Your task to perform on an android device: Open wifi settings Image 0: 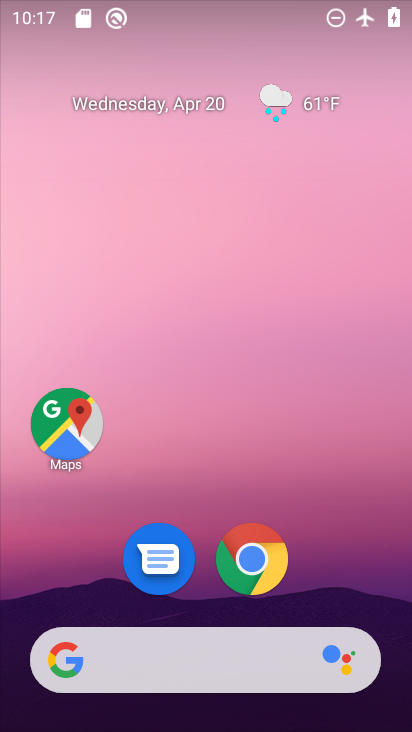
Step 0: drag from (363, 600) to (339, 280)
Your task to perform on an android device: Open wifi settings Image 1: 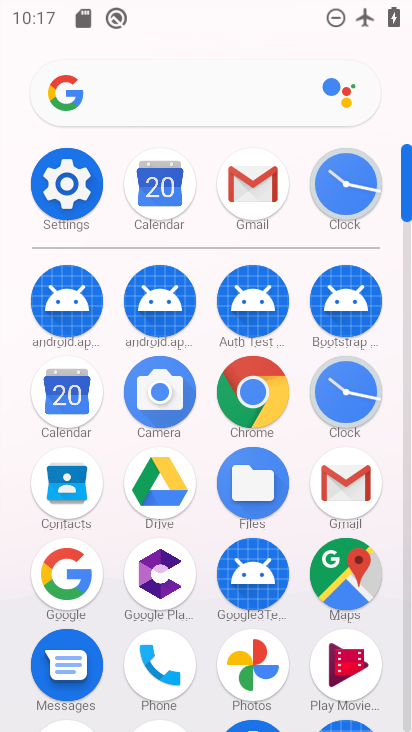
Step 1: click (409, 674)
Your task to perform on an android device: Open wifi settings Image 2: 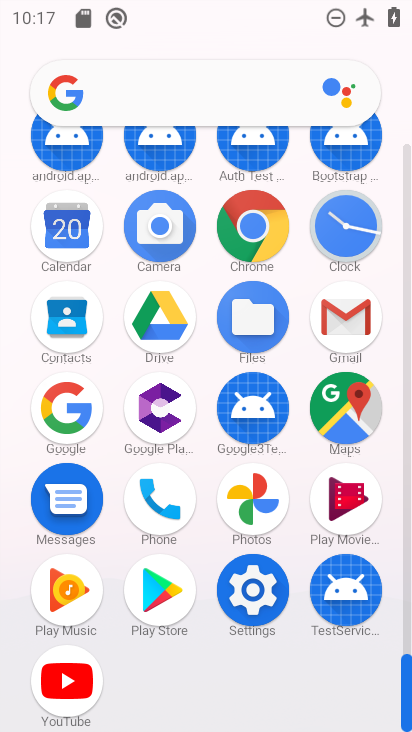
Step 2: click (254, 589)
Your task to perform on an android device: Open wifi settings Image 3: 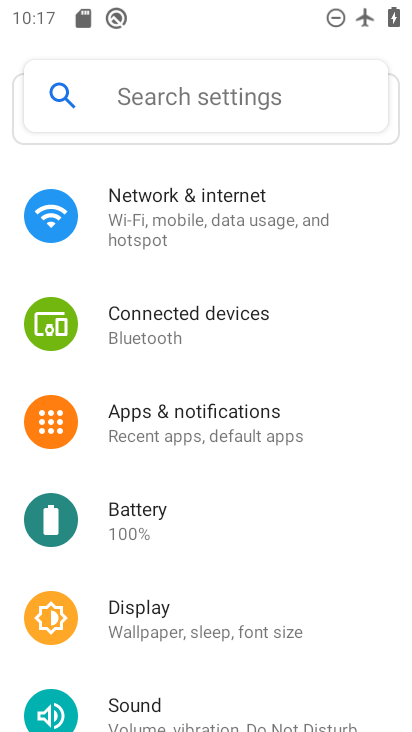
Step 3: click (141, 201)
Your task to perform on an android device: Open wifi settings Image 4: 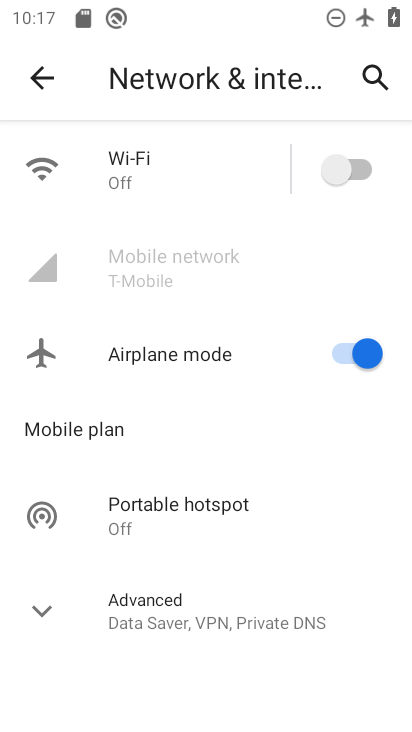
Step 4: click (101, 163)
Your task to perform on an android device: Open wifi settings Image 5: 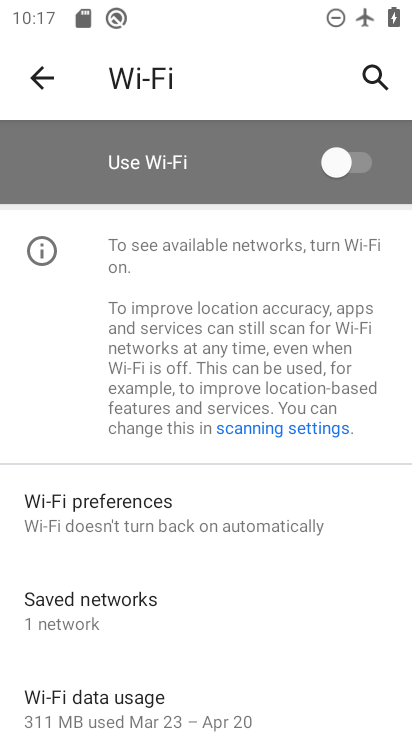
Step 5: task complete